Your task to perform on an android device: Search for 8K TVs on Best Buy. Image 0: 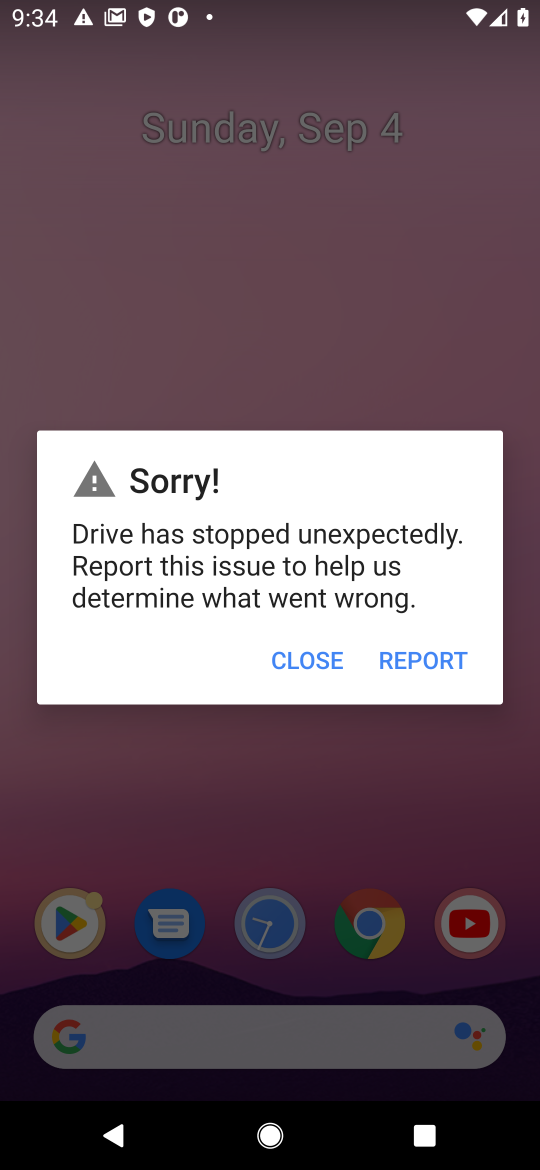
Step 0: press home button
Your task to perform on an android device: Search for 8K TVs on Best Buy. Image 1: 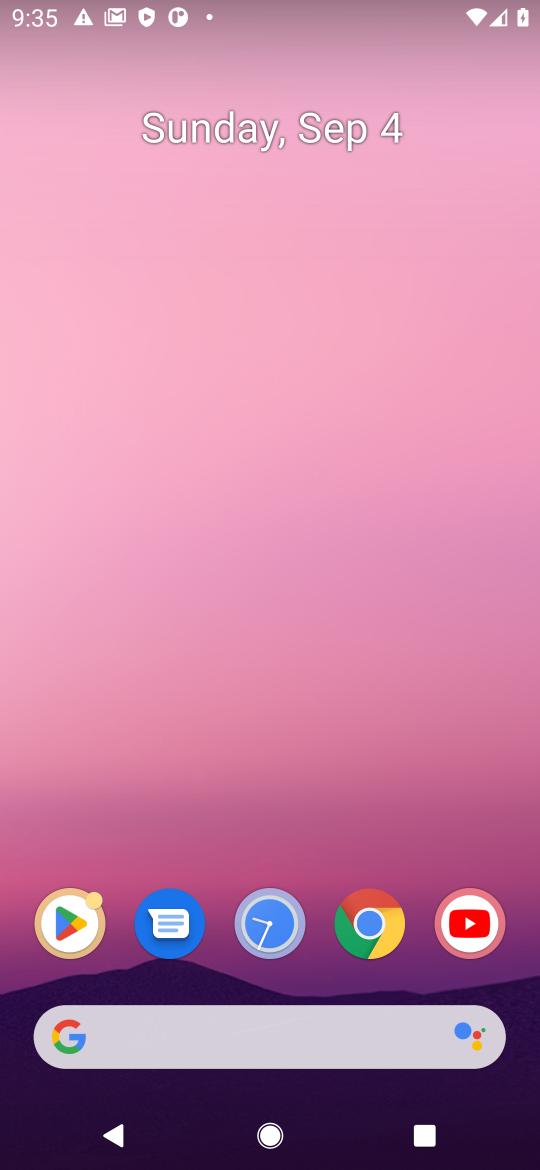
Step 1: click (323, 1036)
Your task to perform on an android device: Search for 8K TVs on Best Buy. Image 2: 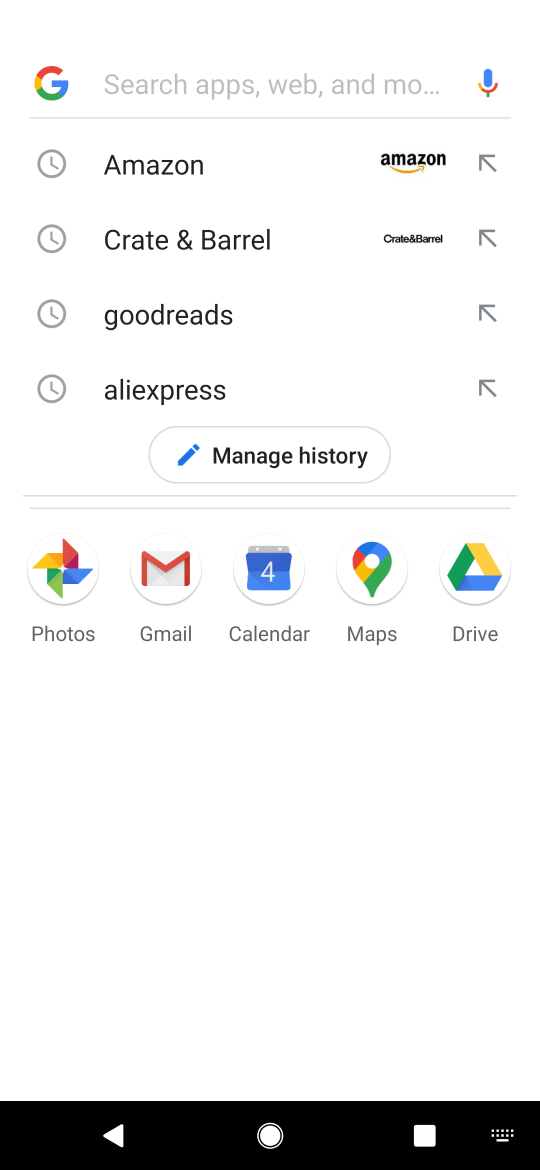
Step 2: press enter
Your task to perform on an android device: Search for 8K TVs on Best Buy. Image 3: 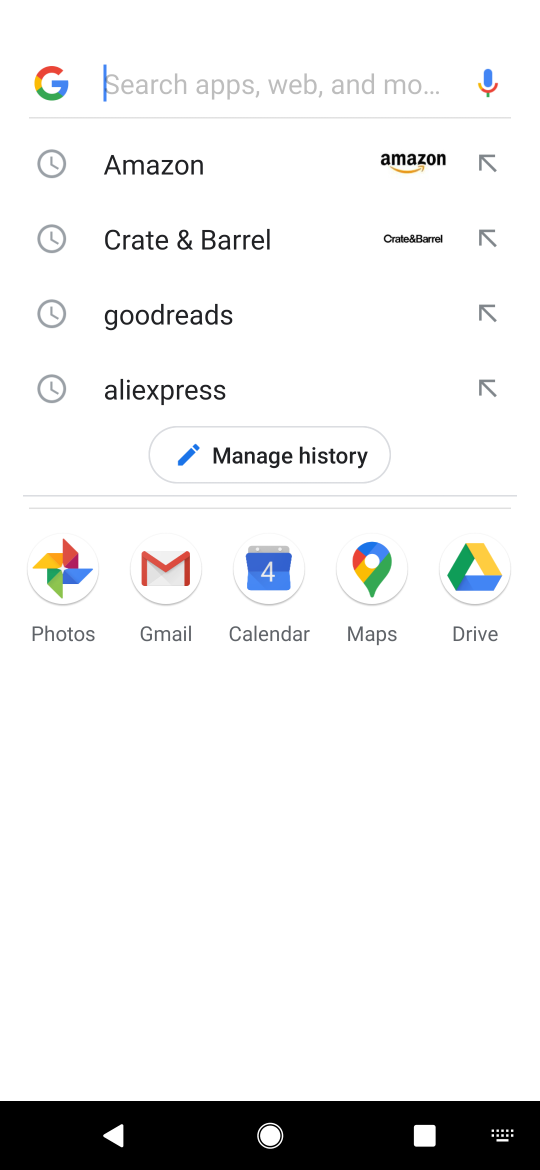
Step 3: type "best buy"
Your task to perform on an android device: Search for 8K TVs on Best Buy. Image 4: 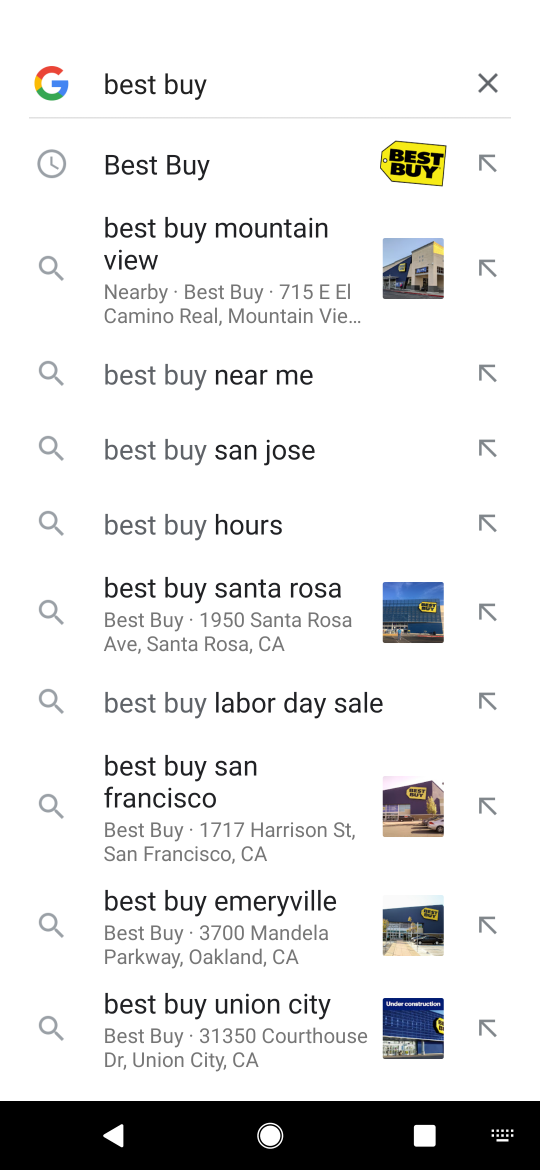
Step 4: click (171, 164)
Your task to perform on an android device: Search for 8K TVs on Best Buy. Image 5: 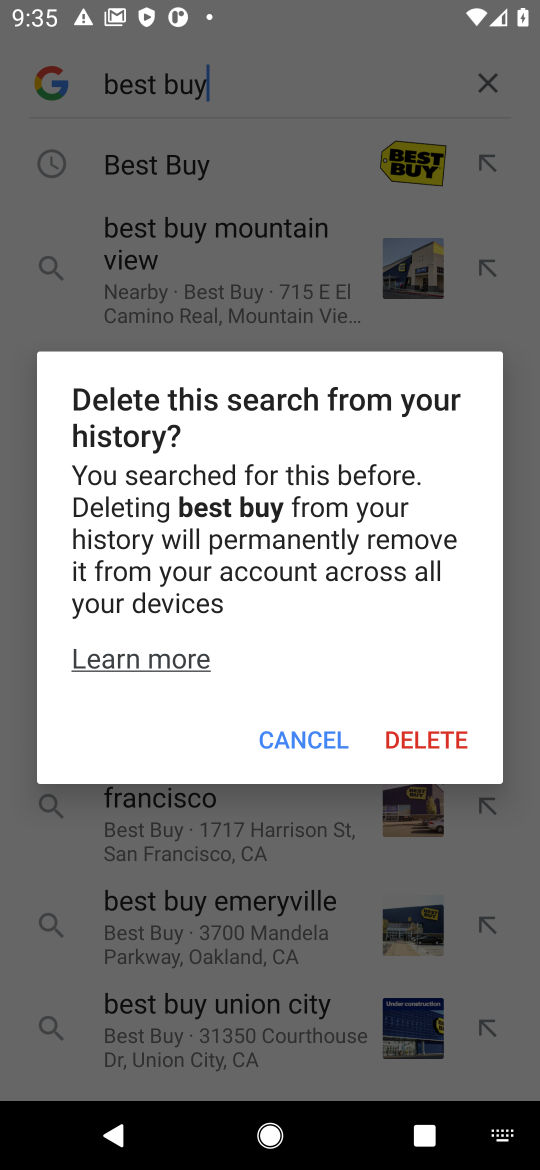
Step 5: click (332, 730)
Your task to perform on an android device: Search for 8K TVs on Best Buy. Image 6: 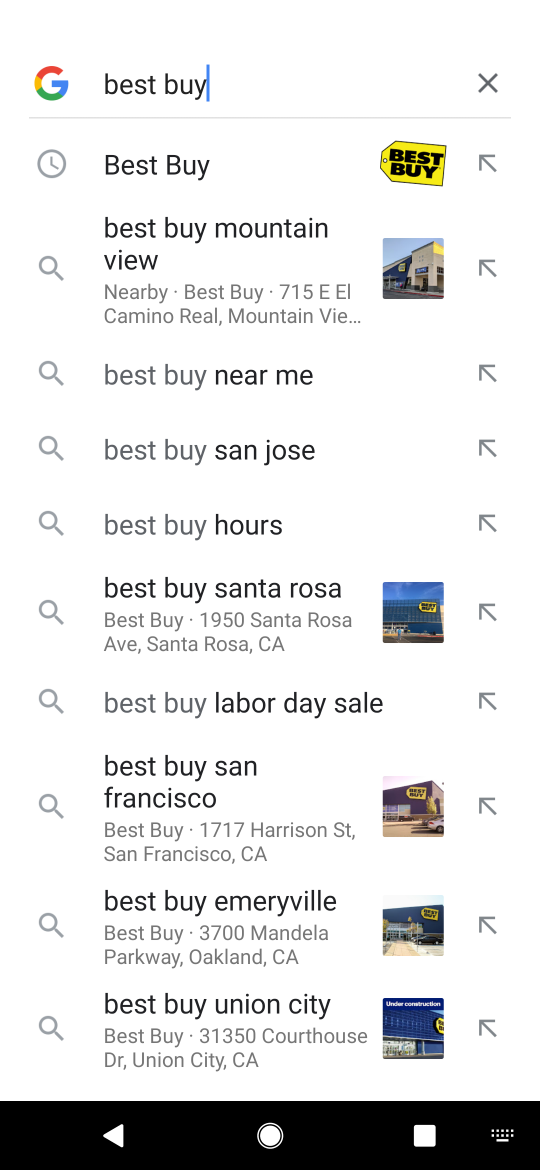
Step 6: click (180, 166)
Your task to perform on an android device: Search for 8K TVs on Best Buy. Image 7: 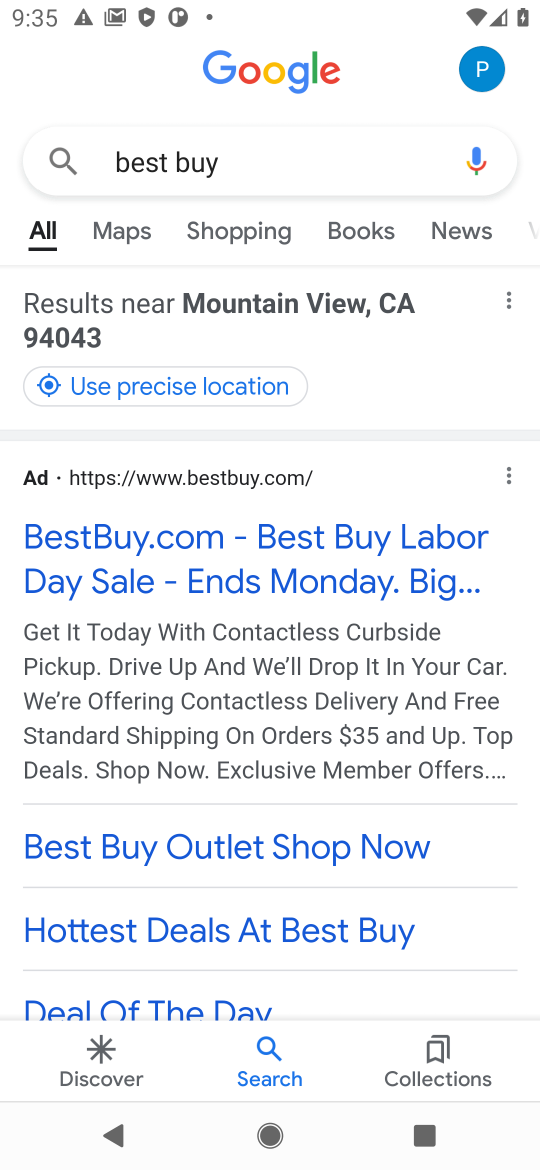
Step 7: click (261, 557)
Your task to perform on an android device: Search for 8K TVs on Best Buy. Image 8: 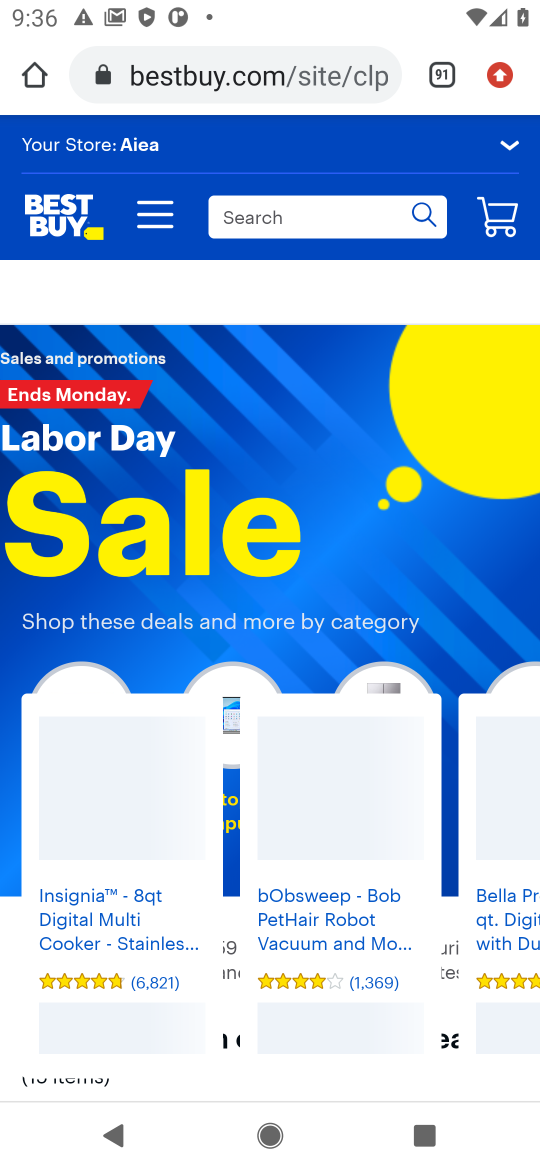
Step 8: click (291, 209)
Your task to perform on an android device: Search for 8K TVs on Best Buy. Image 9: 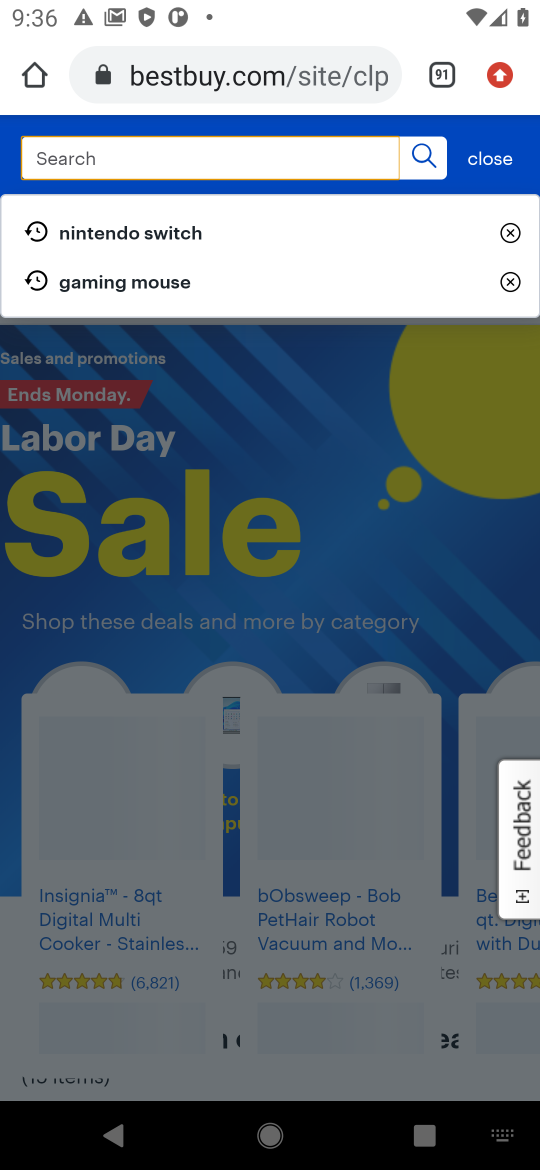
Step 9: press enter
Your task to perform on an android device: Search for 8K TVs on Best Buy. Image 10: 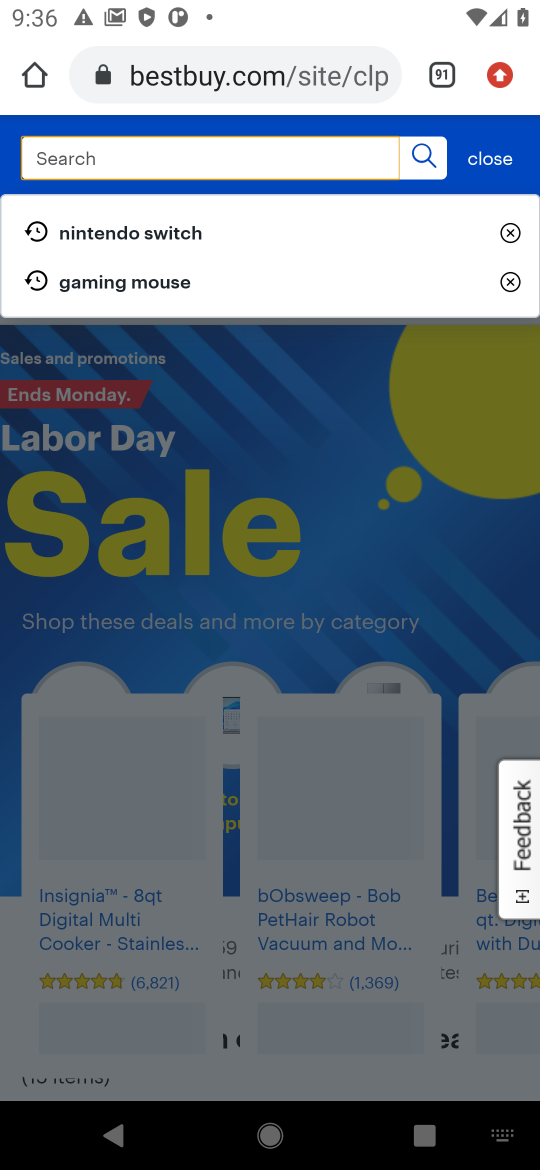
Step 10: type "8k tvs"
Your task to perform on an android device: Search for 8K TVs on Best Buy. Image 11: 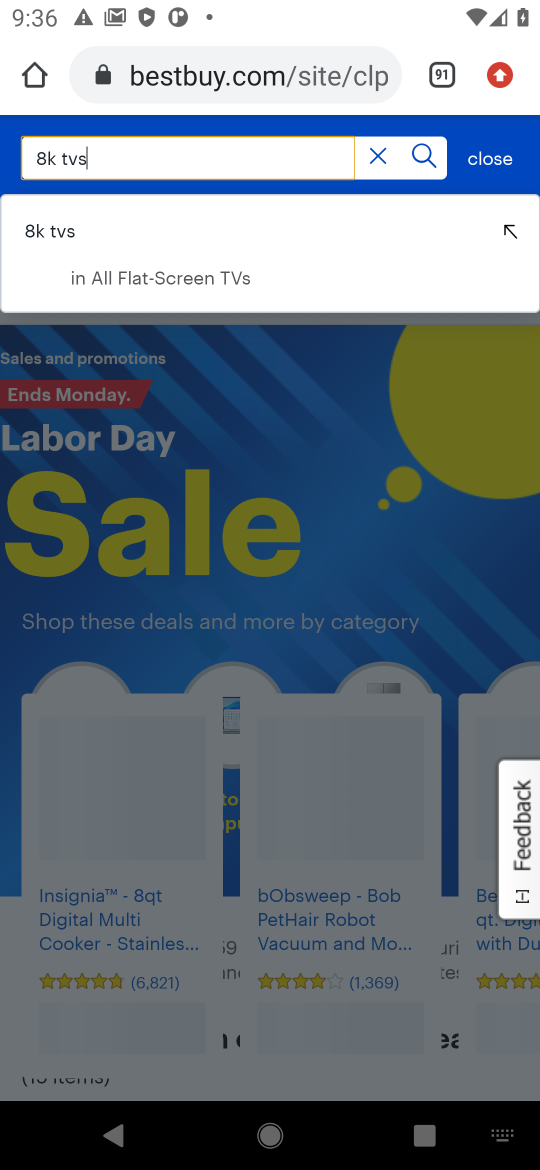
Step 11: click (47, 231)
Your task to perform on an android device: Search for 8K TVs on Best Buy. Image 12: 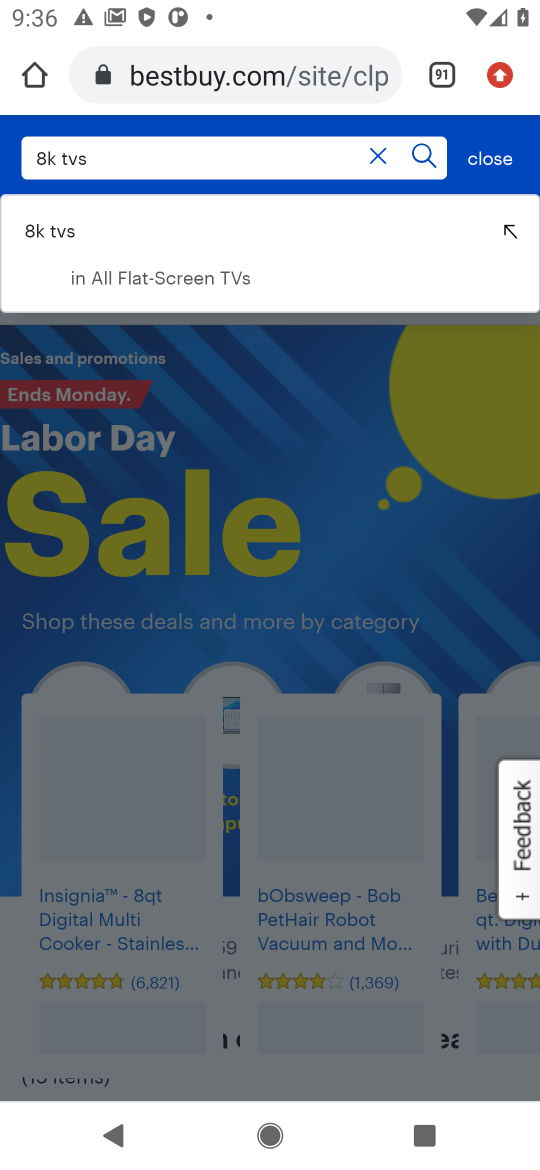
Step 12: click (55, 225)
Your task to perform on an android device: Search for 8K TVs on Best Buy. Image 13: 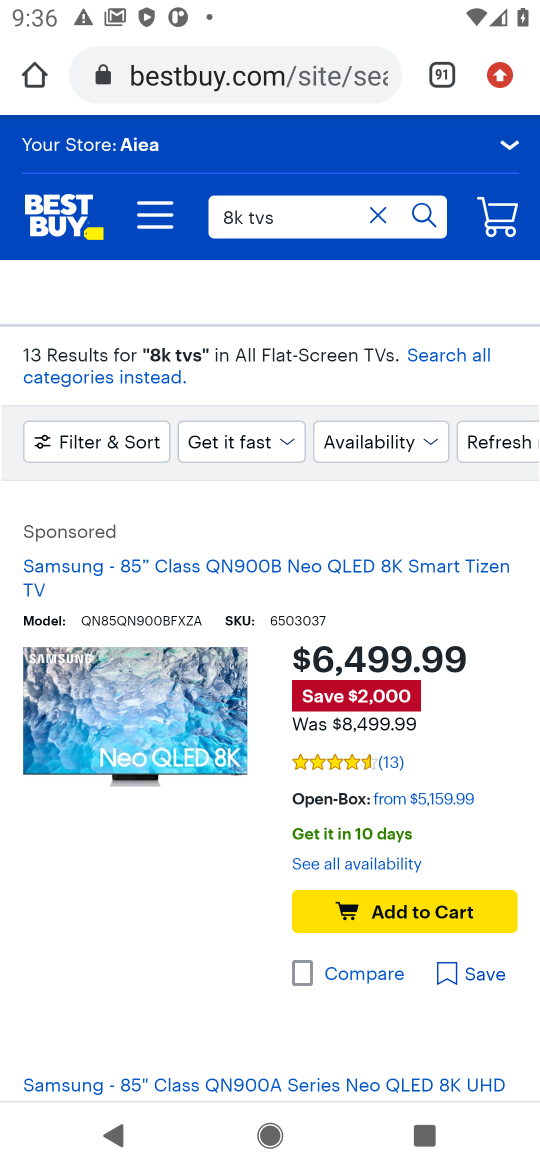
Step 13: task complete